Your task to perform on an android device: toggle improve location accuracy Image 0: 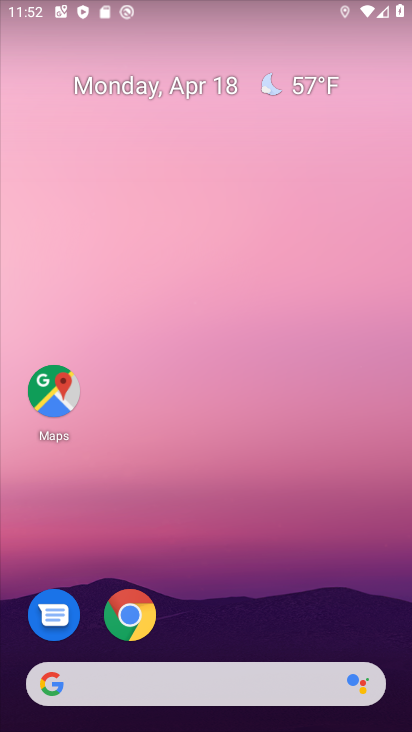
Step 0: drag from (211, 570) to (183, 73)
Your task to perform on an android device: toggle improve location accuracy Image 1: 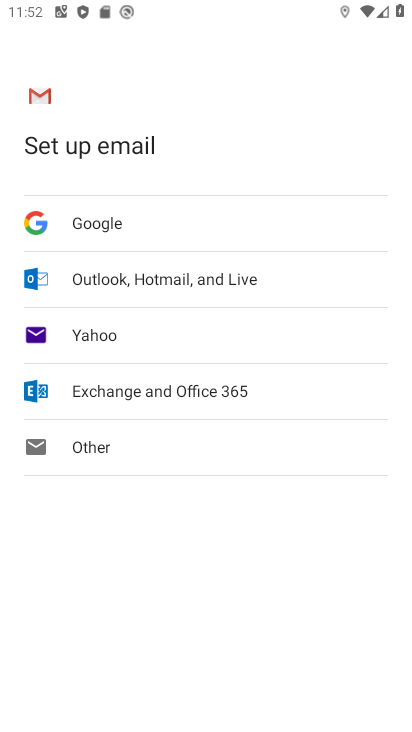
Step 1: press home button
Your task to perform on an android device: toggle improve location accuracy Image 2: 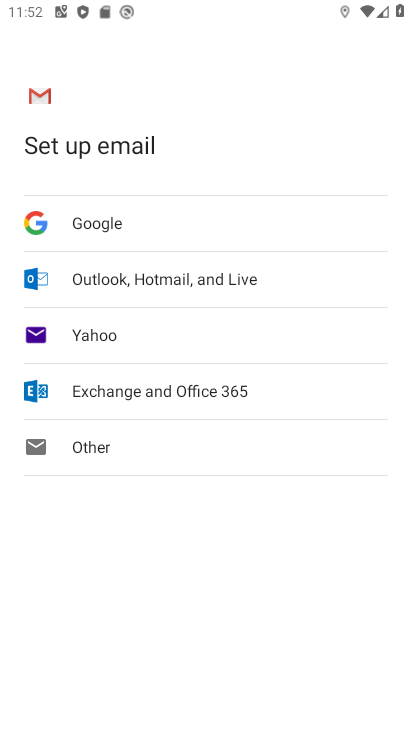
Step 2: press home button
Your task to perform on an android device: toggle improve location accuracy Image 3: 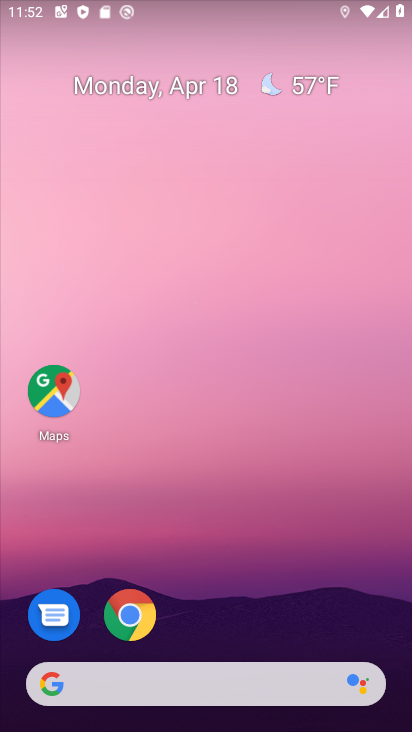
Step 3: drag from (227, 634) to (227, 154)
Your task to perform on an android device: toggle improve location accuracy Image 4: 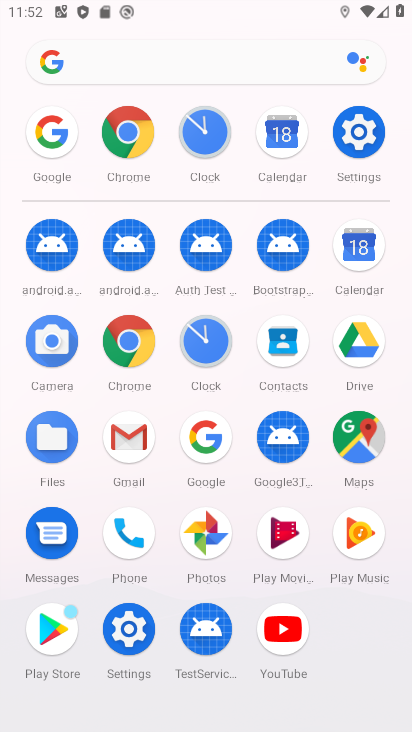
Step 4: click (353, 123)
Your task to perform on an android device: toggle improve location accuracy Image 5: 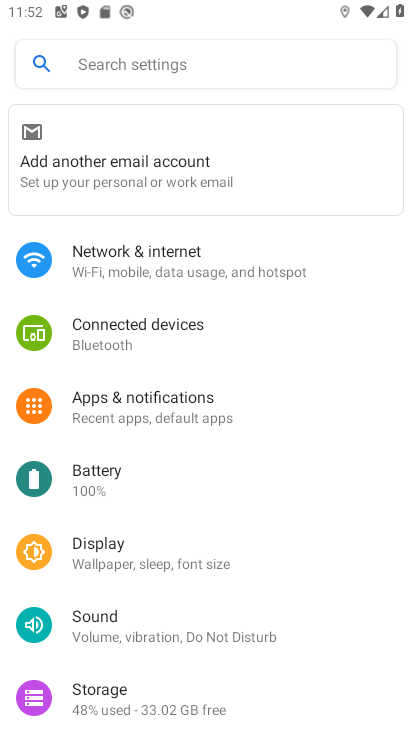
Step 5: drag from (221, 689) to (233, 247)
Your task to perform on an android device: toggle improve location accuracy Image 6: 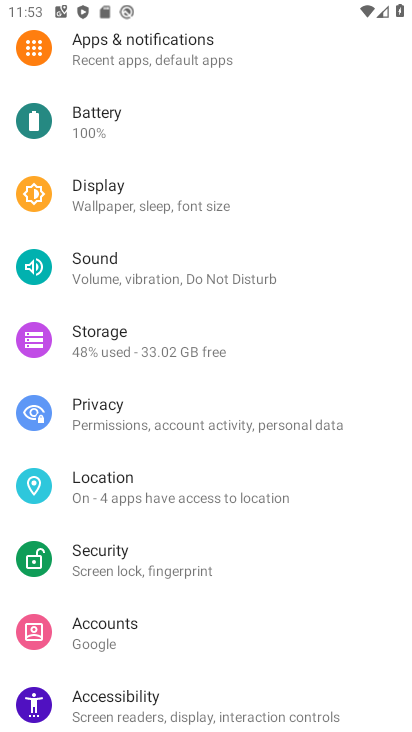
Step 6: click (120, 486)
Your task to perform on an android device: toggle improve location accuracy Image 7: 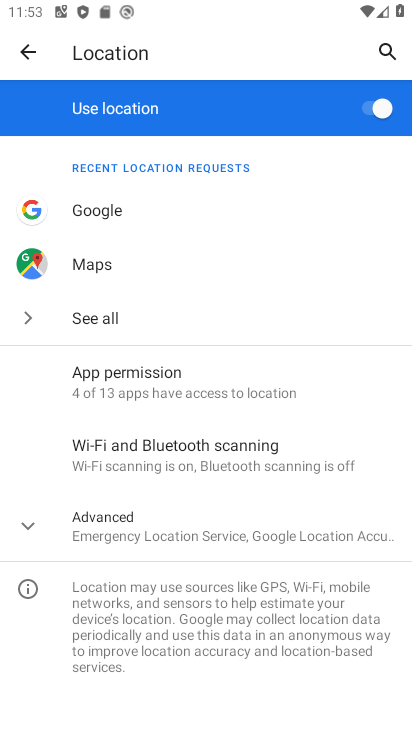
Step 7: click (171, 518)
Your task to perform on an android device: toggle improve location accuracy Image 8: 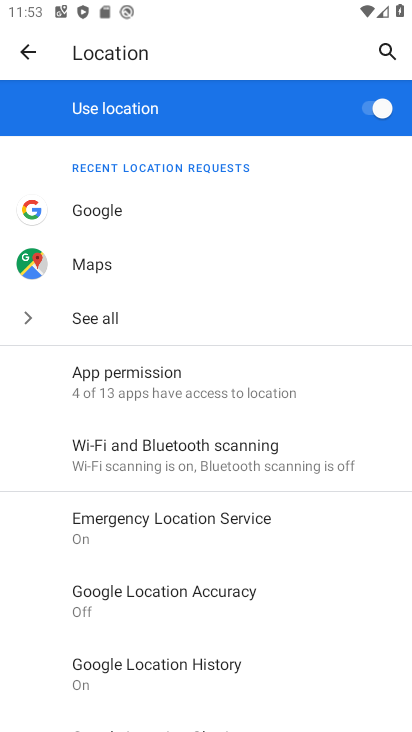
Step 8: drag from (183, 641) to (193, 325)
Your task to perform on an android device: toggle improve location accuracy Image 9: 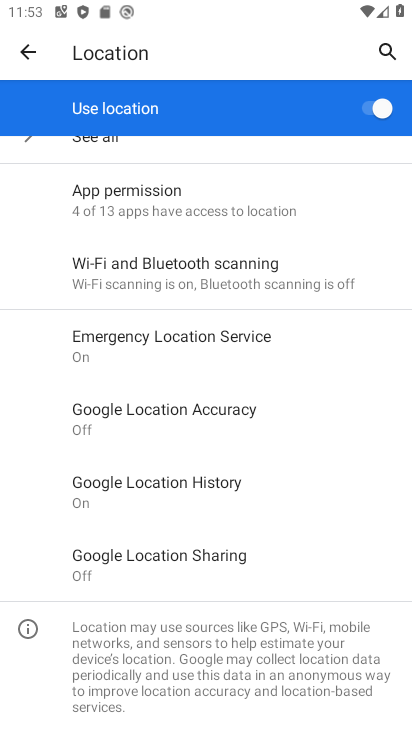
Step 9: click (223, 404)
Your task to perform on an android device: toggle improve location accuracy Image 10: 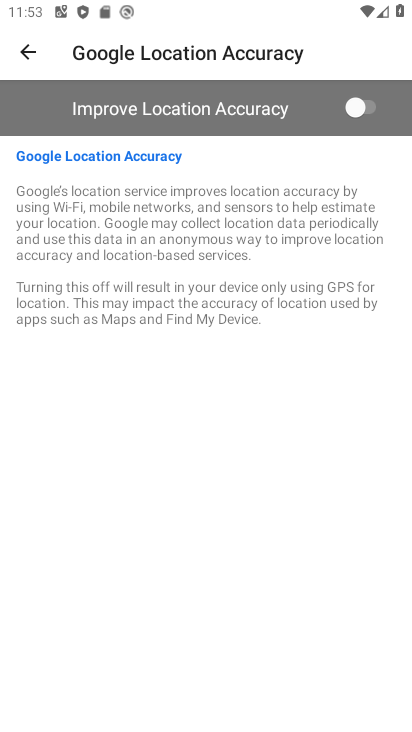
Step 10: click (360, 106)
Your task to perform on an android device: toggle improve location accuracy Image 11: 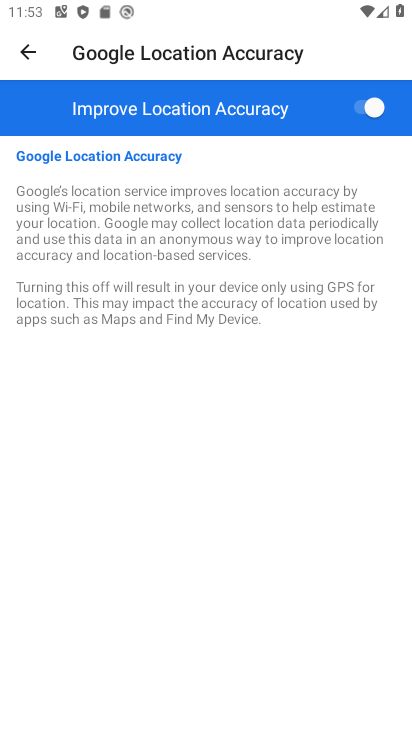
Step 11: task complete